Your task to perform on an android device: delete location history Image 0: 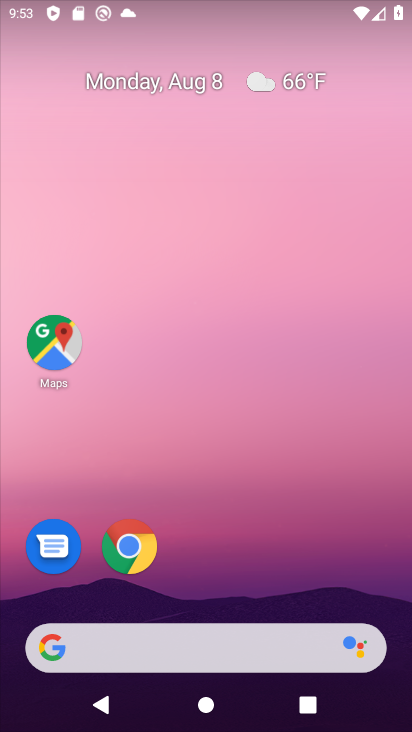
Step 0: click (127, 537)
Your task to perform on an android device: delete location history Image 1: 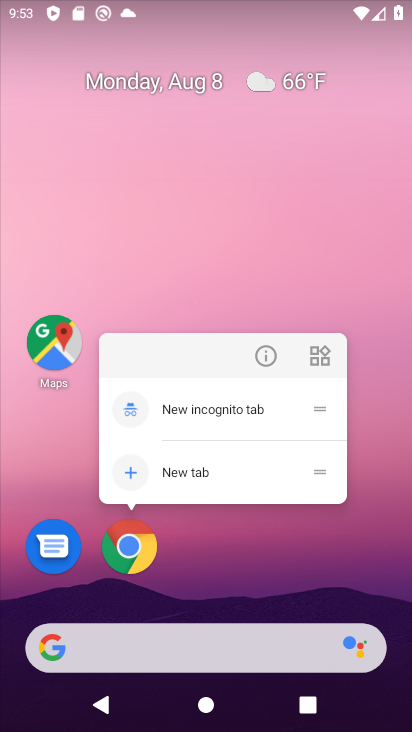
Step 1: click (156, 549)
Your task to perform on an android device: delete location history Image 2: 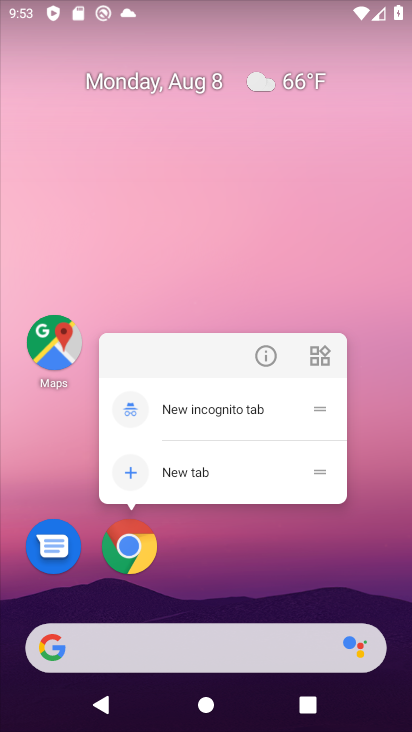
Step 2: click (373, 534)
Your task to perform on an android device: delete location history Image 3: 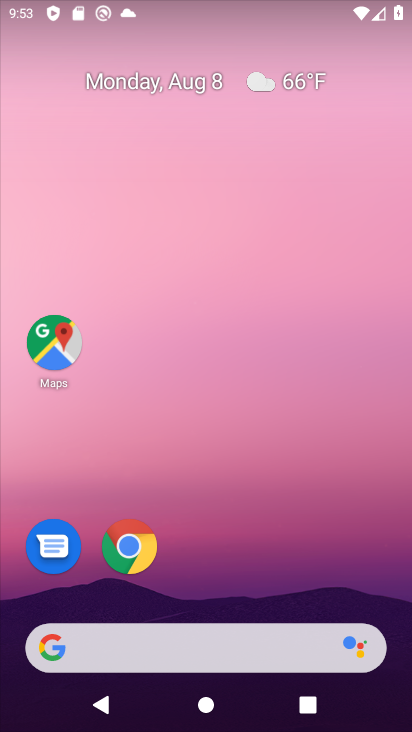
Step 3: drag from (261, 531) to (294, 125)
Your task to perform on an android device: delete location history Image 4: 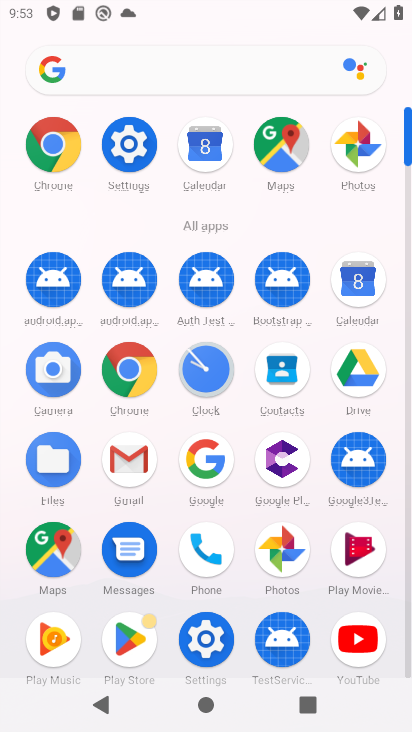
Step 4: click (220, 633)
Your task to perform on an android device: delete location history Image 5: 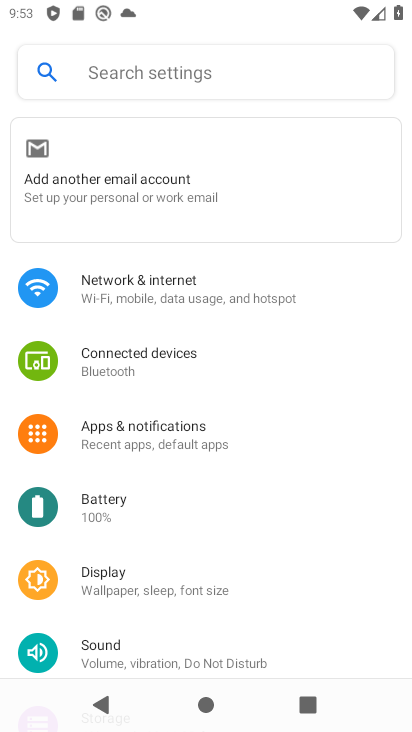
Step 5: drag from (182, 578) to (243, 262)
Your task to perform on an android device: delete location history Image 6: 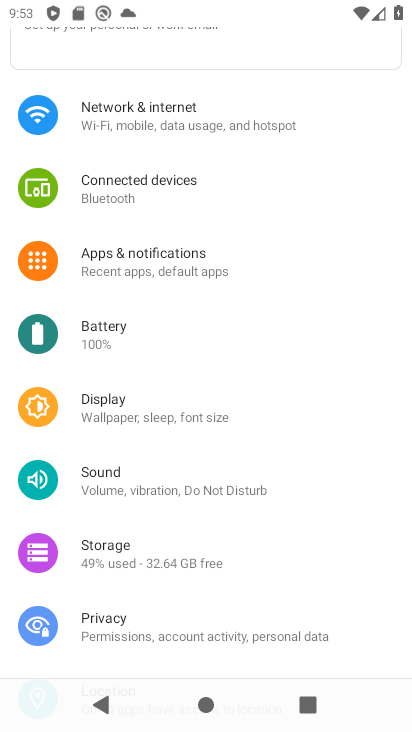
Step 6: drag from (191, 605) to (215, 252)
Your task to perform on an android device: delete location history Image 7: 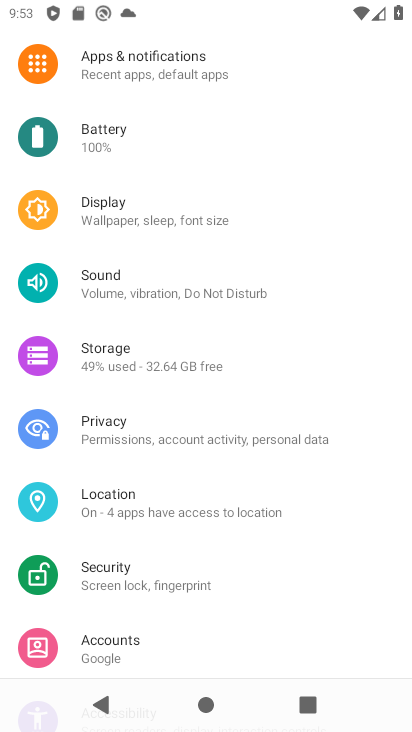
Step 7: click (132, 510)
Your task to perform on an android device: delete location history Image 8: 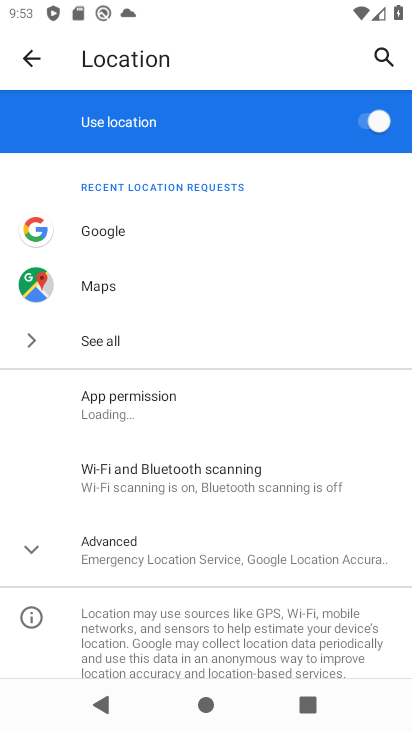
Step 8: task complete